Your task to perform on an android device: change keyboard looks Image 0: 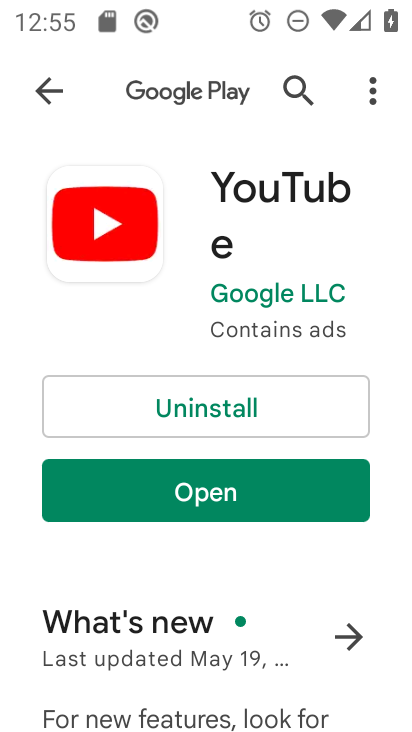
Step 0: press home button
Your task to perform on an android device: change keyboard looks Image 1: 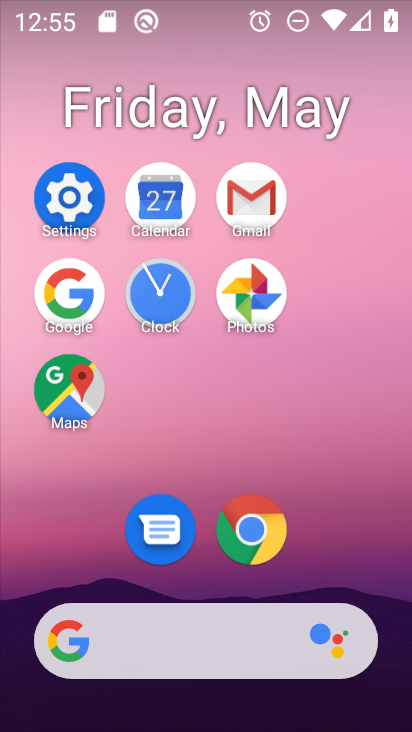
Step 1: click (53, 203)
Your task to perform on an android device: change keyboard looks Image 2: 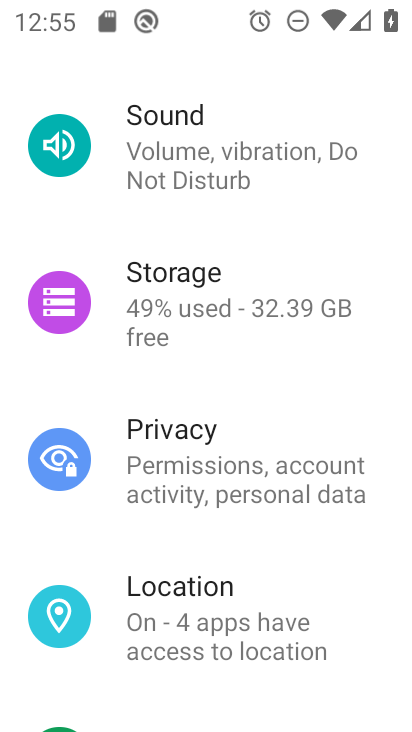
Step 2: drag from (222, 620) to (289, 134)
Your task to perform on an android device: change keyboard looks Image 3: 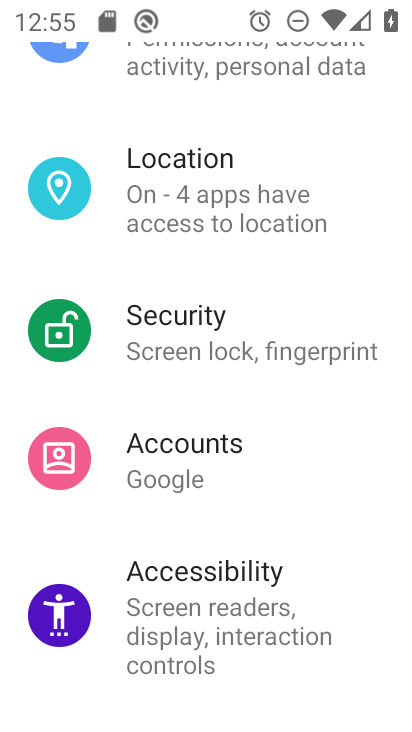
Step 3: drag from (270, 573) to (266, 231)
Your task to perform on an android device: change keyboard looks Image 4: 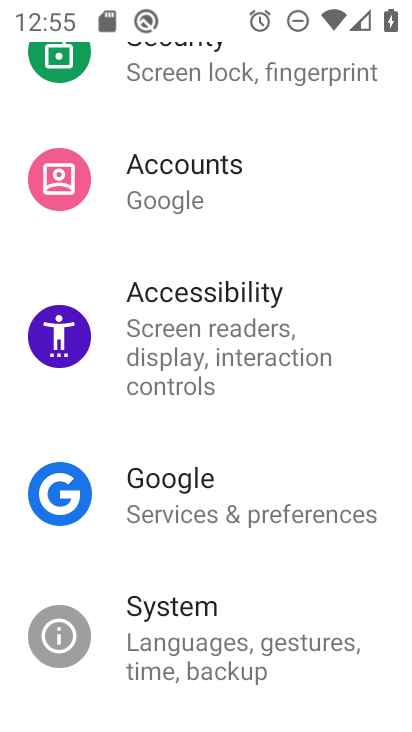
Step 4: click (224, 607)
Your task to perform on an android device: change keyboard looks Image 5: 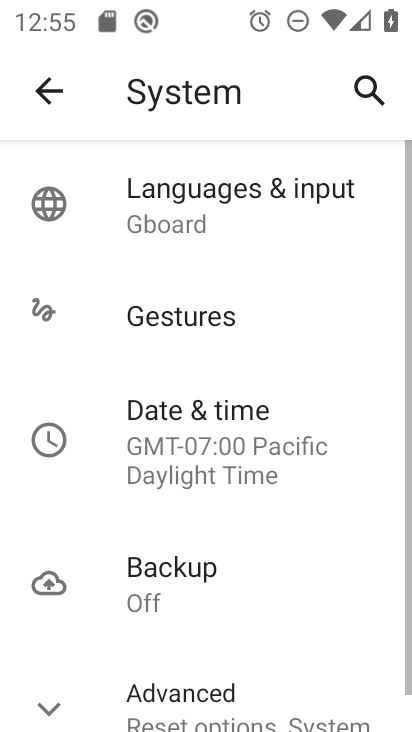
Step 5: click (238, 222)
Your task to perform on an android device: change keyboard looks Image 6: 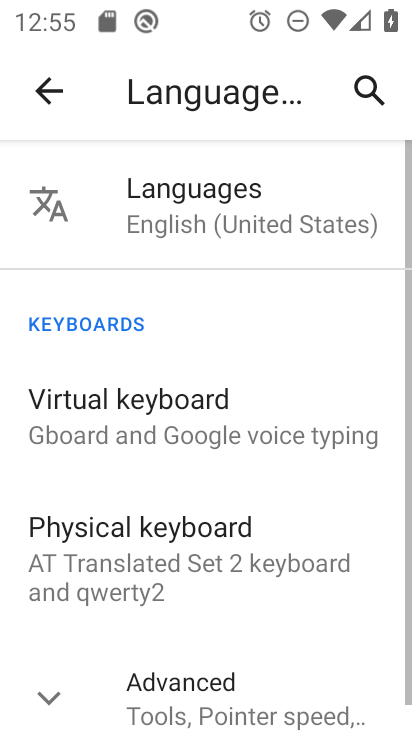
Step 6: click (232, 410)
Your task to perform on an android device: change keyboard looks Image 7: 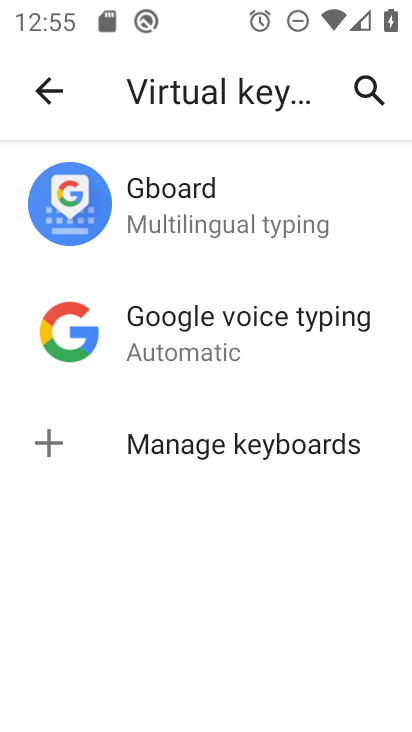
Step 7: click (215, 223)
Your task to perform on an android device: change keyboard looks Image 8: 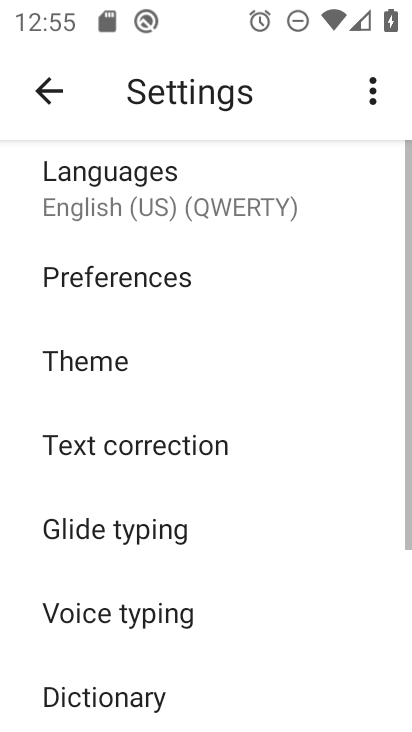
Step 8: click (158, 359)
Your task to perform on an android device: change keyboard looks Image 9: 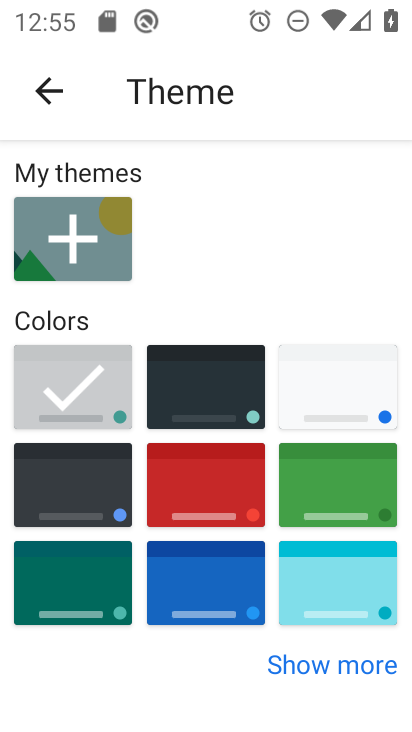
Step 9: click (246, 422)
Your task to perform on an android device: change keyboard looks Image 10: 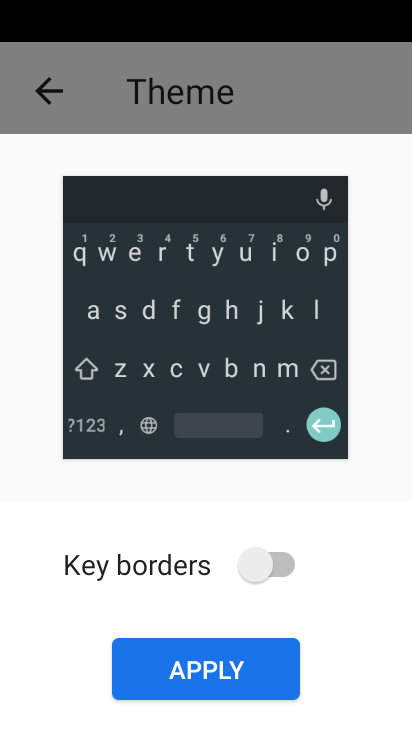
Step 10: click (250, 565)
Your task to perform on an android device: change keyboard looks Image 11: 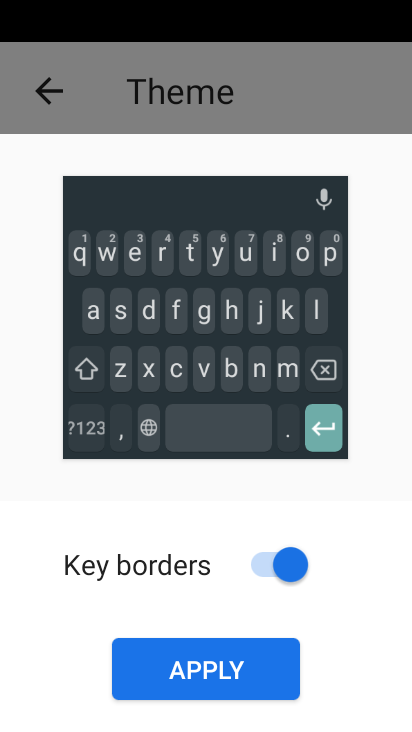
Step 11: click (259, 676)
Your task to perform on an android device: change keyboard looks Image 12: 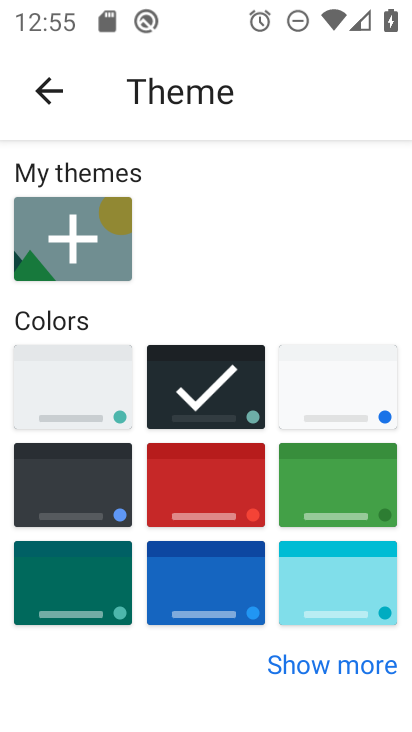
Step 12: task complete